Your task to perform on an android device: make emails show in primary in the gmail app Image 0: 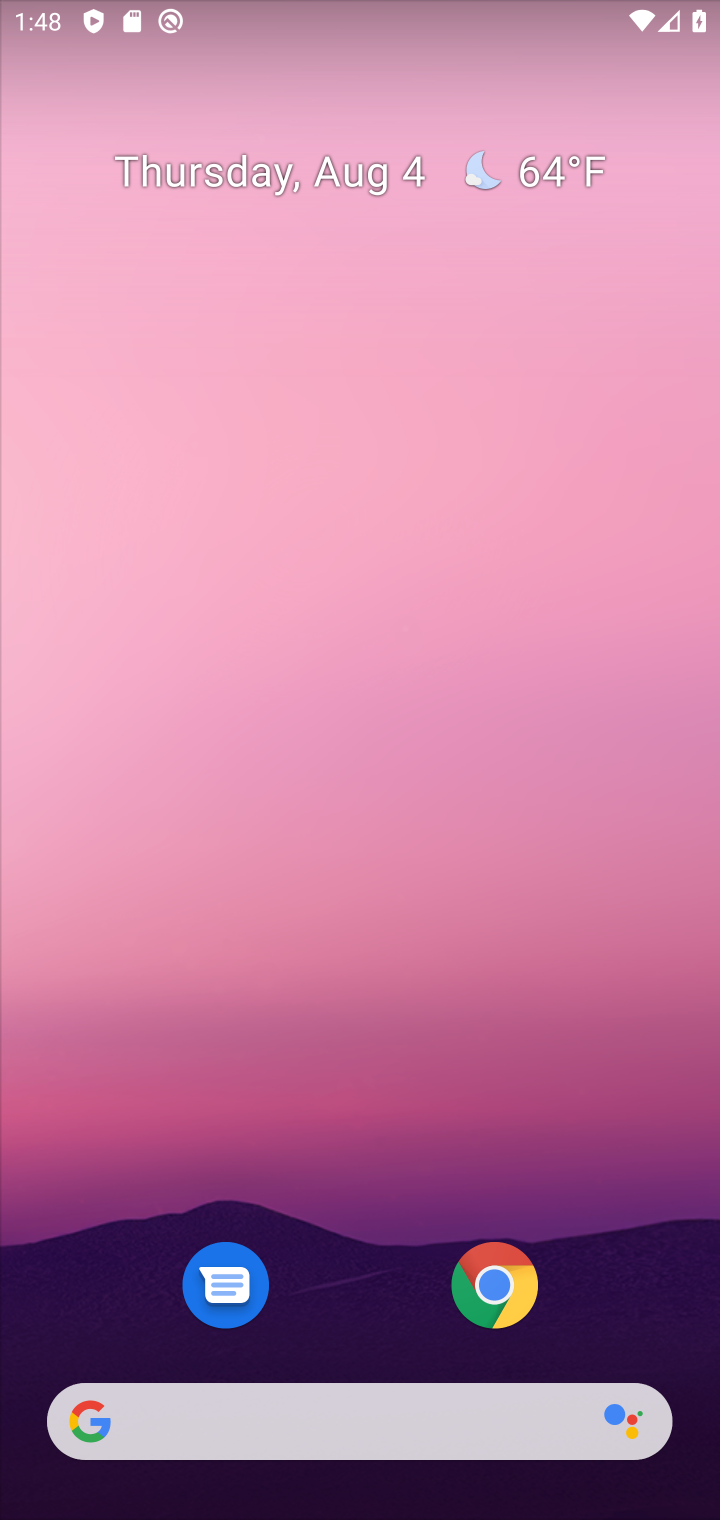
Step 0: drag from (662, 1329) to (554, 244)
Your task to perform on an android device: make emails show in primary in the gmail app Image 1: 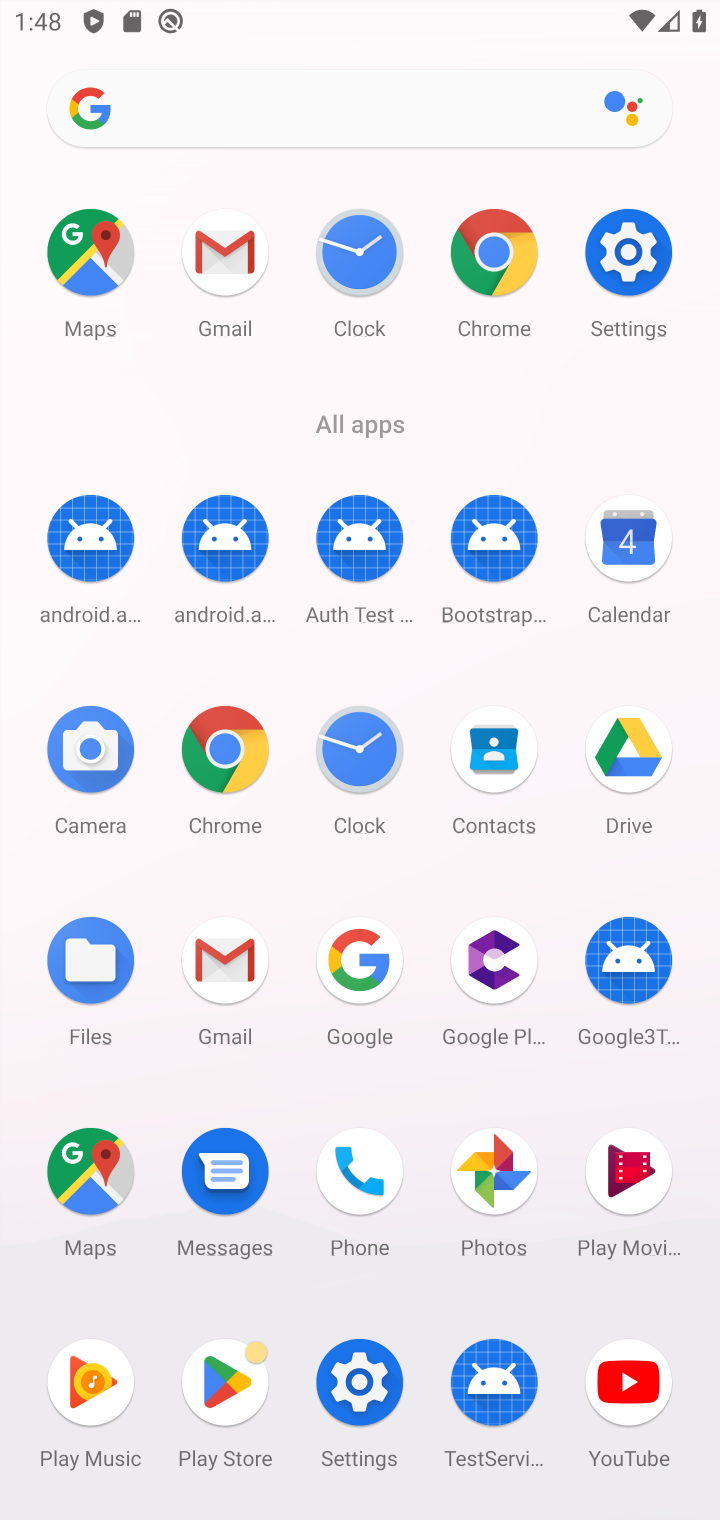
Step 1: click (221, 960)
Your task to perform on an android device: make emails show in primary in the gmail app Image 2: 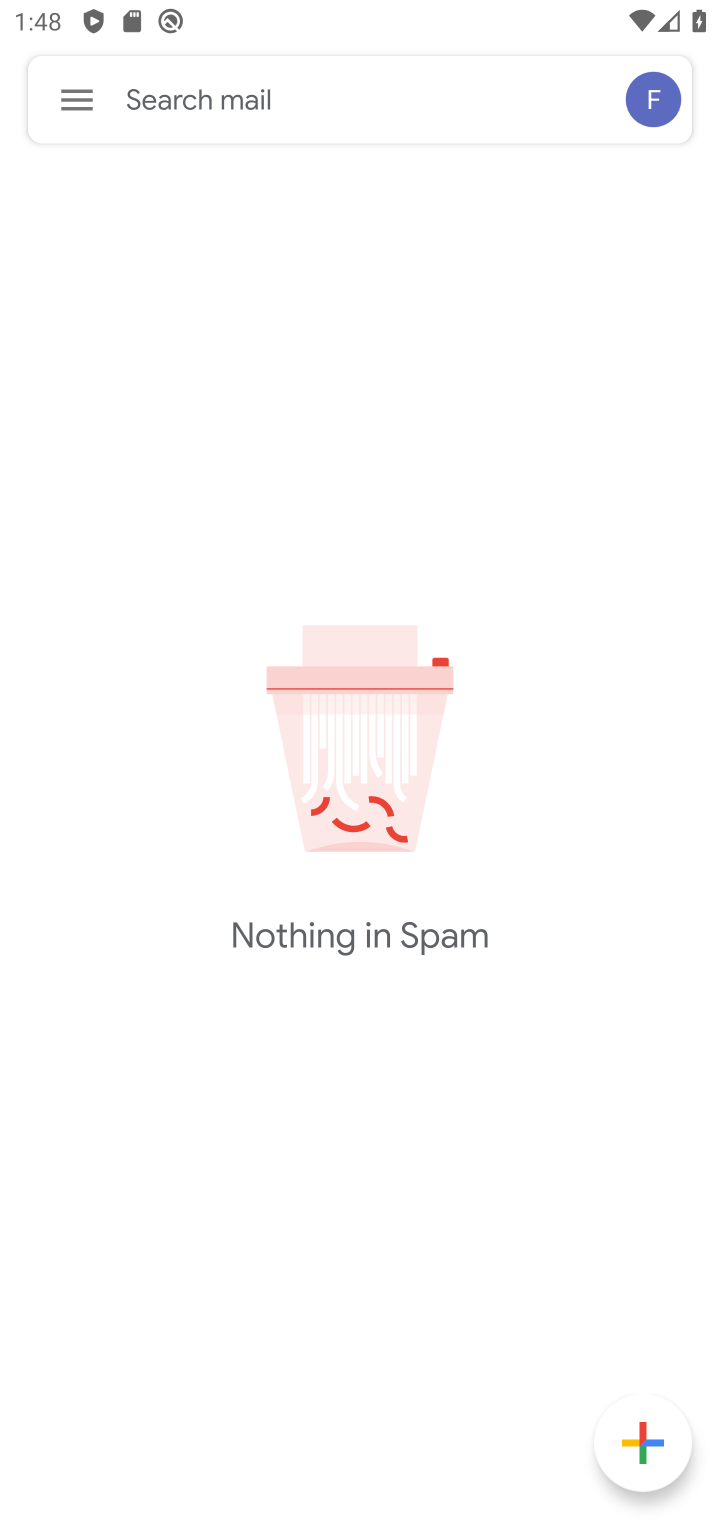
Step 2: click (70, 108)
Your task to perform on an android device: make emails show in primary in the gmail app Image 3: 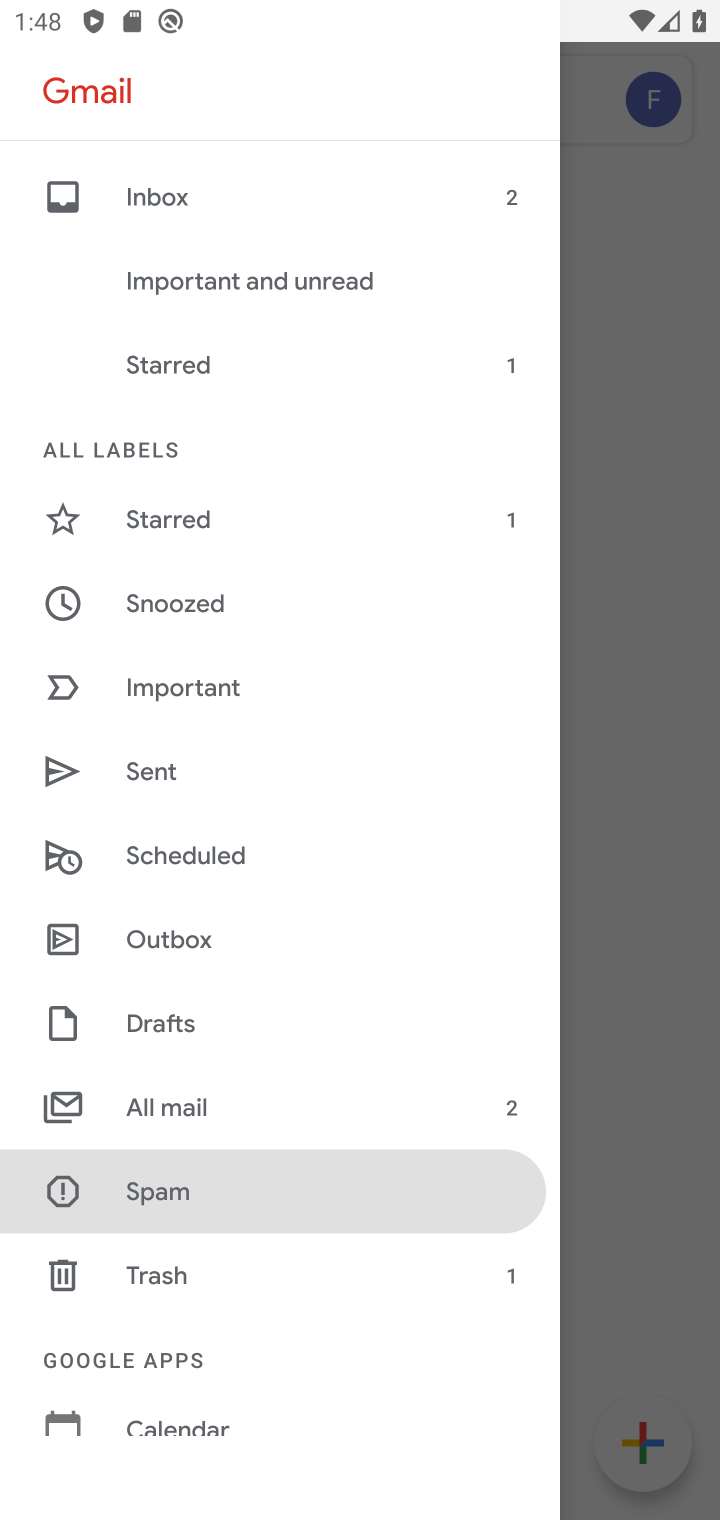
Step 3: drag from (345, 1370) to (391, 723)
Your task to perform on an android device: make emails show in primary in the gmail app Image 4: 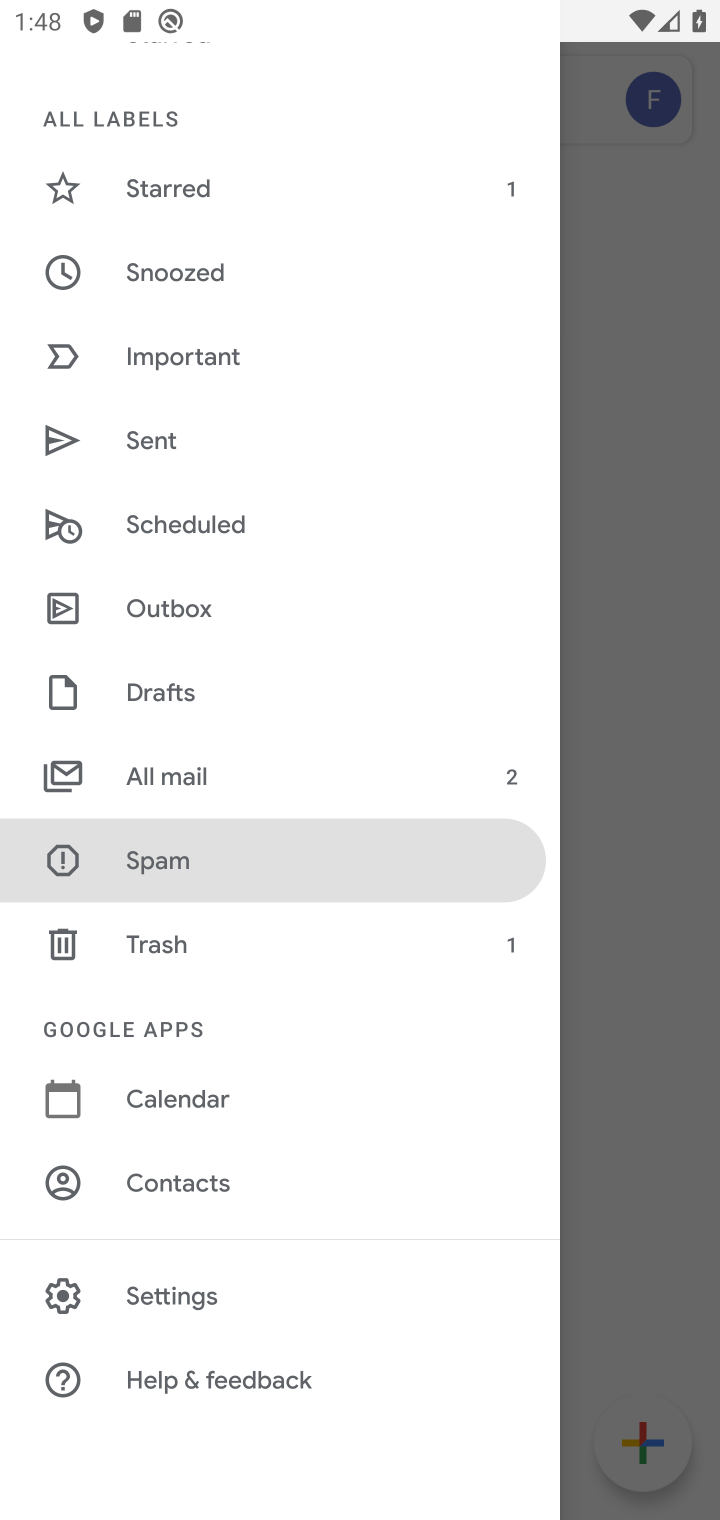
Step 4: click (158, 1289)
Your task to perform on an android device: make emails show in primary in the gmail app Image 5: 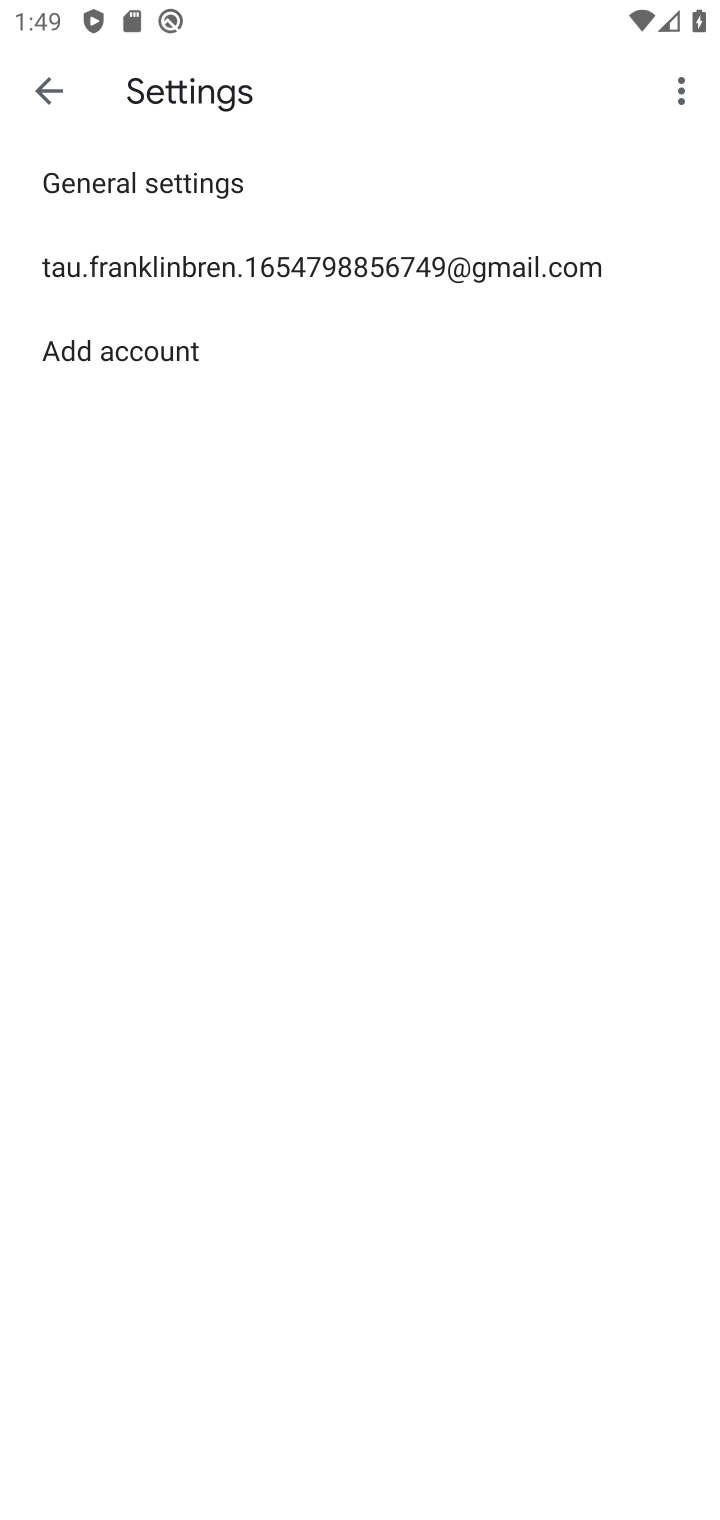
Step 5: click (289, 266)
Your task to perform on an android device: make emails show in primary in the gmail app Image 6: 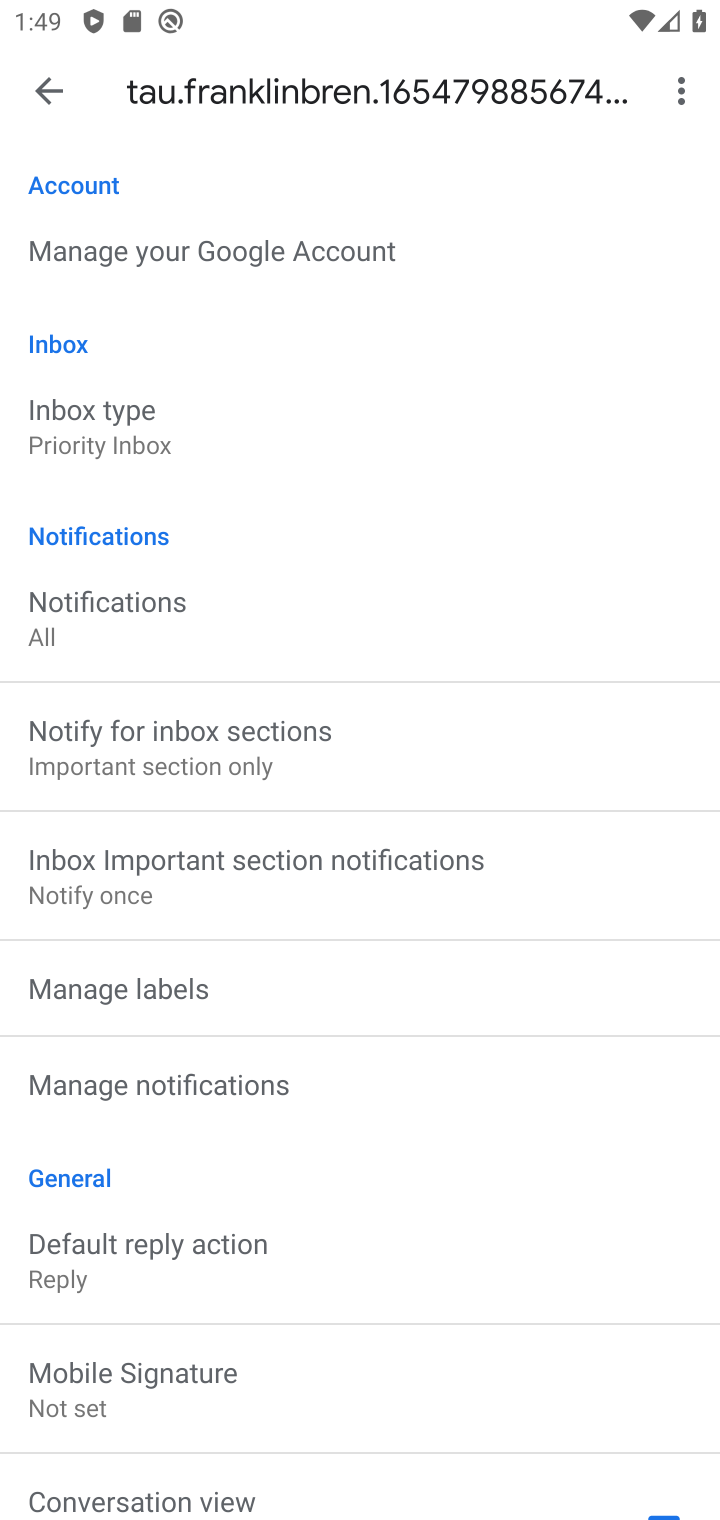
Step 6: click (71, 402)
Your task to perform on an android device: make emails show in primary in the gmail app Image 7: 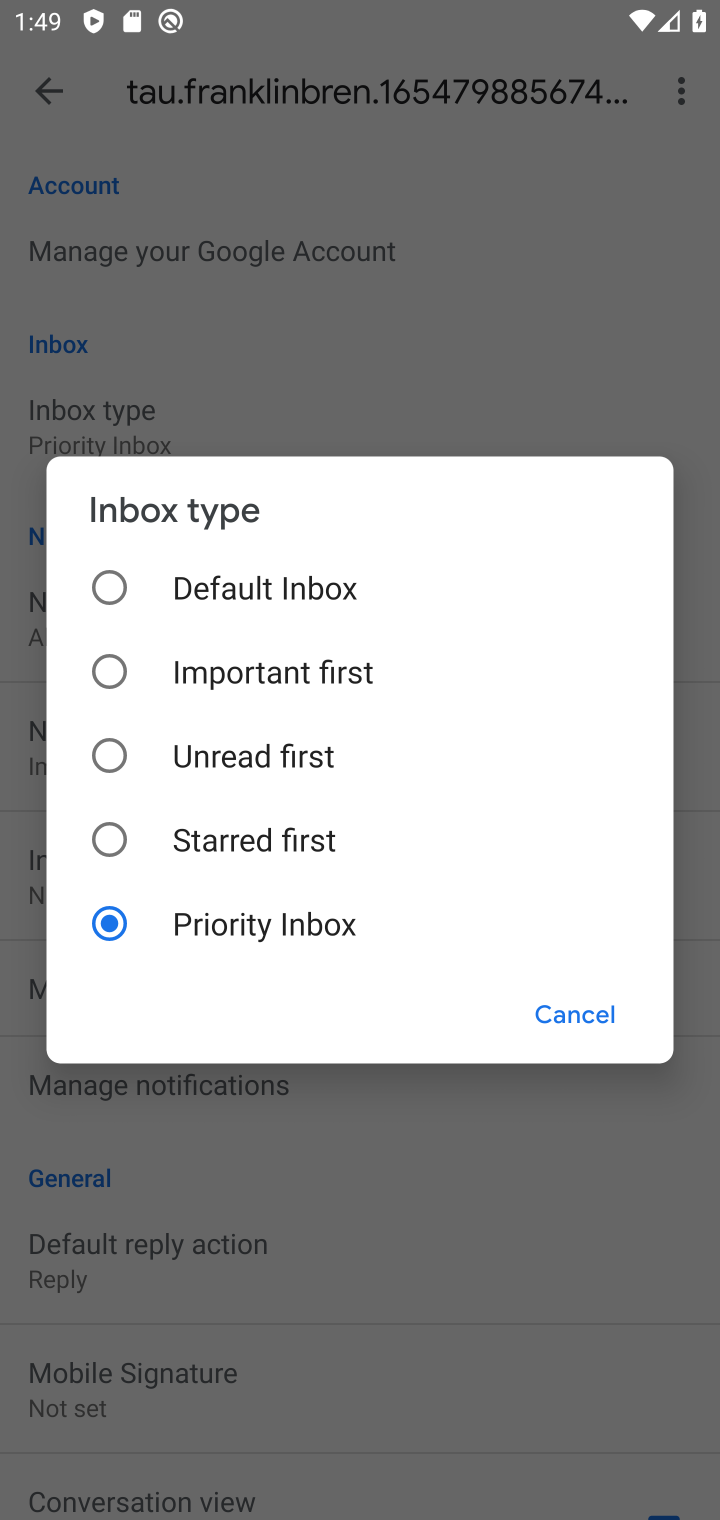
Step 7: click (107, 582)
Your task to perform on an android device: make emails show in primary in the gmail app Image 8: 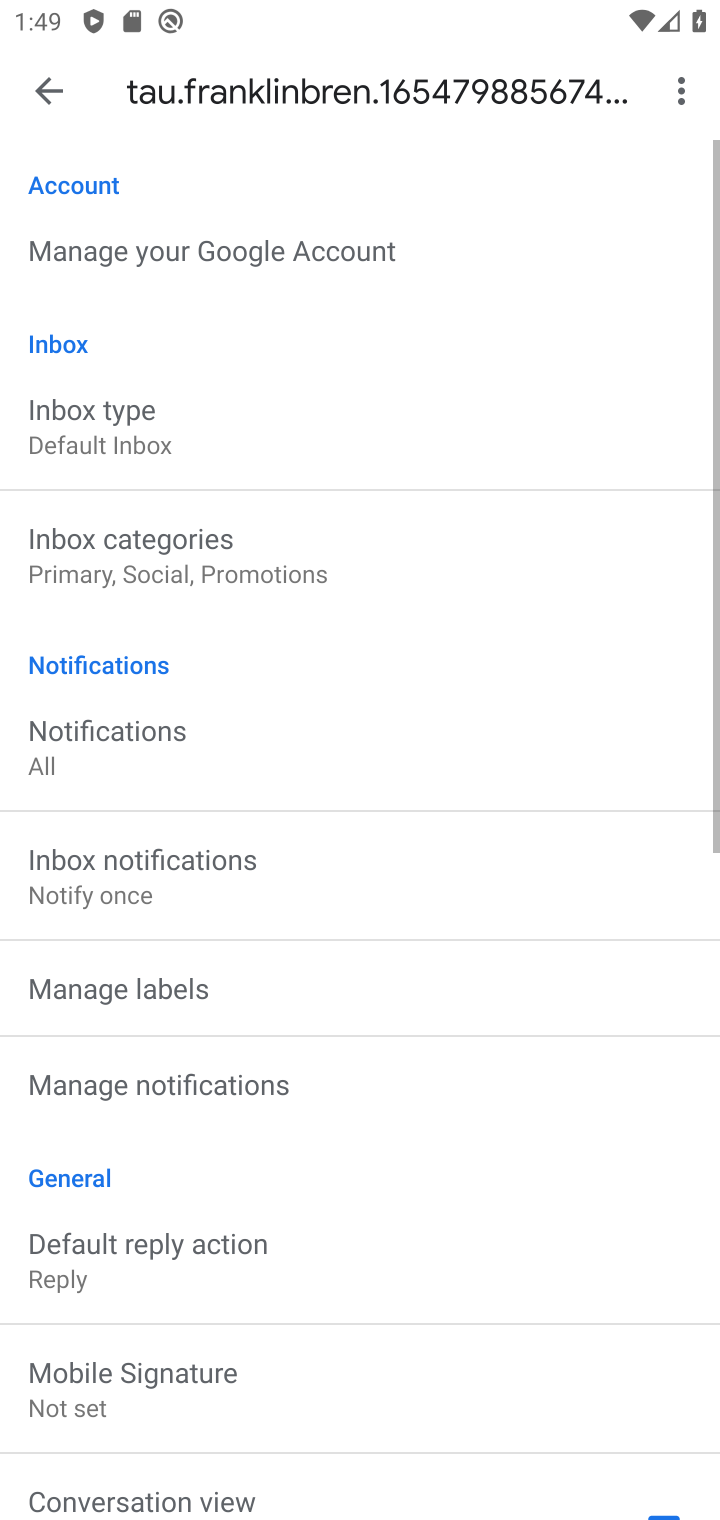
Step 8: click (150, 557)
Your task to perform on an android device: make emails show in primary in the gmail app Image 9: 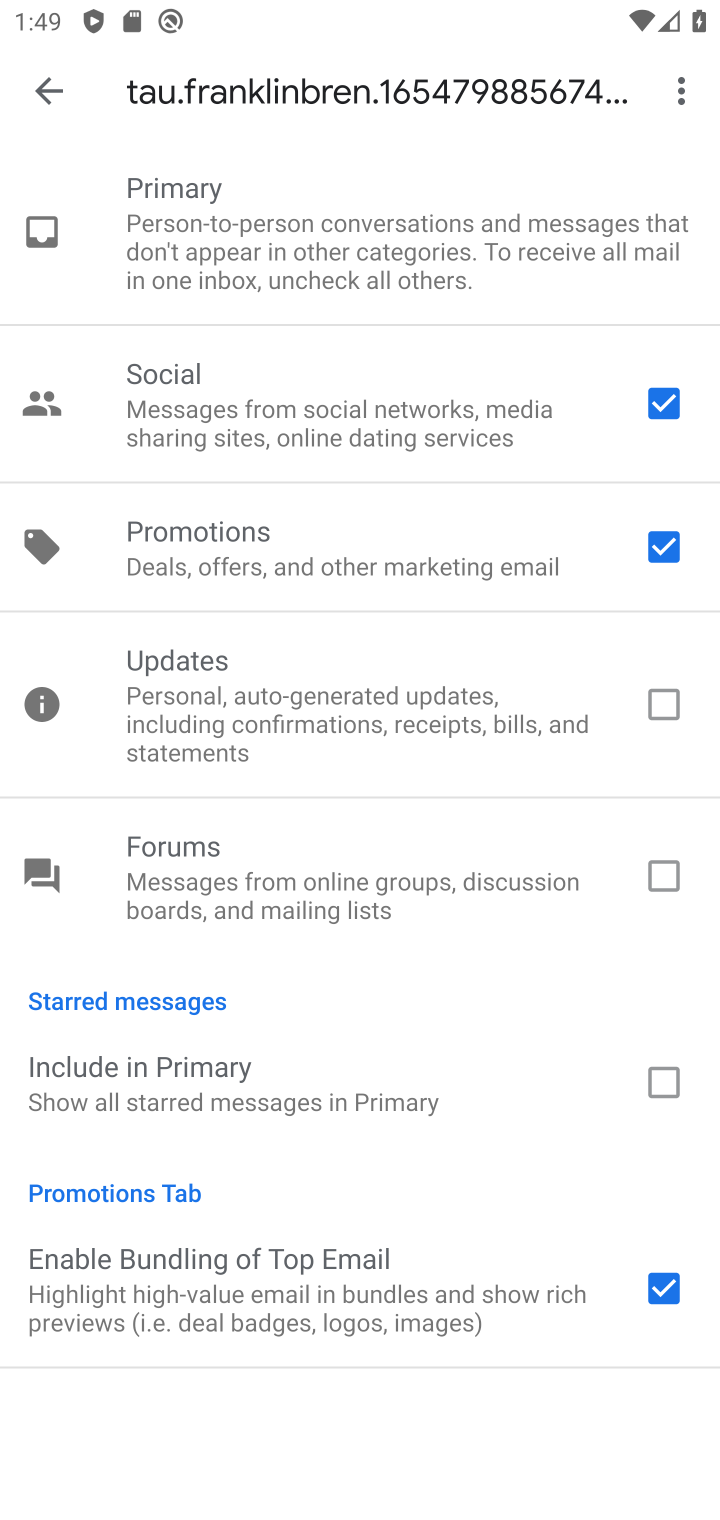
Step 9: click (661, 408)
Your task to perform on an android device: make emails show in primary in the gmail app Image 10: 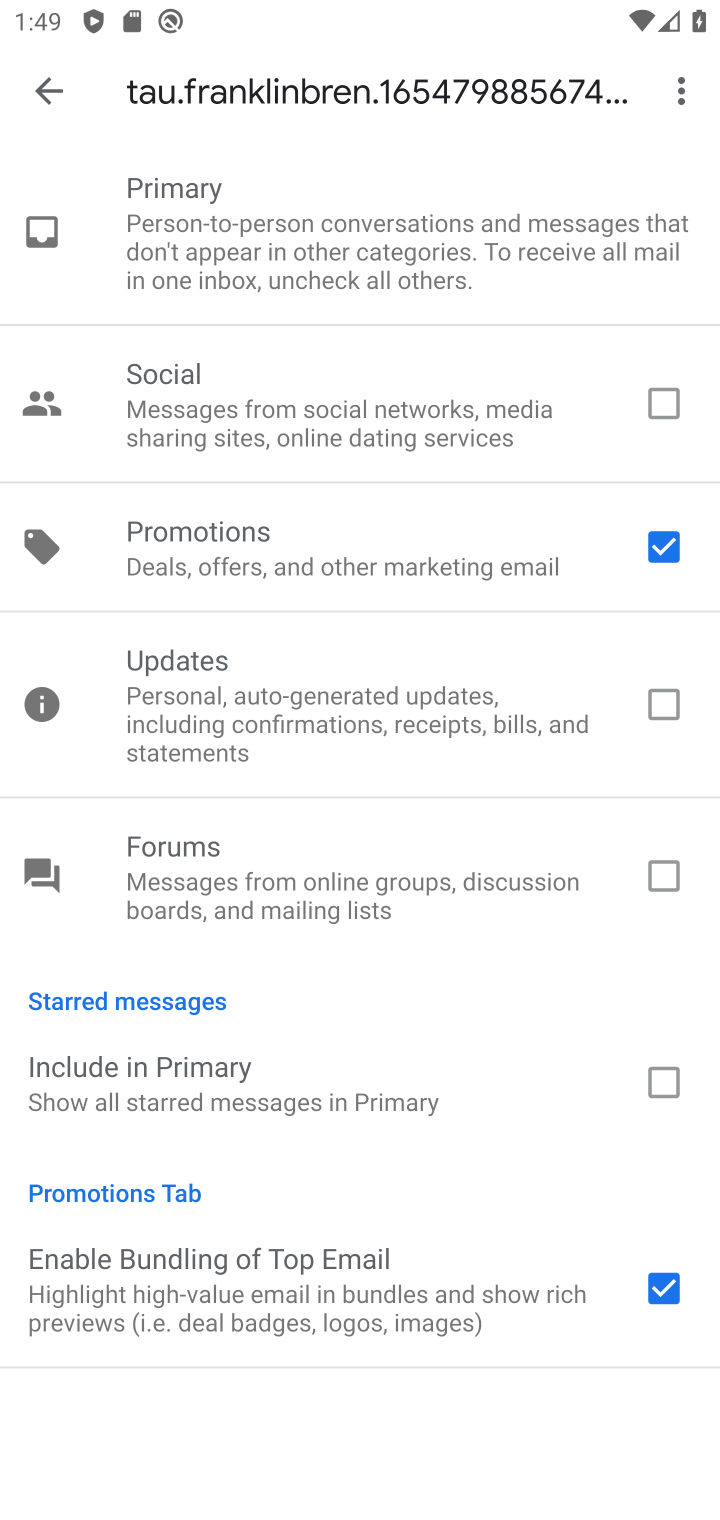
Step 10: click (662, 550)
Your task to perform on an android device: make emails show in primary in the gmail app Image 11: 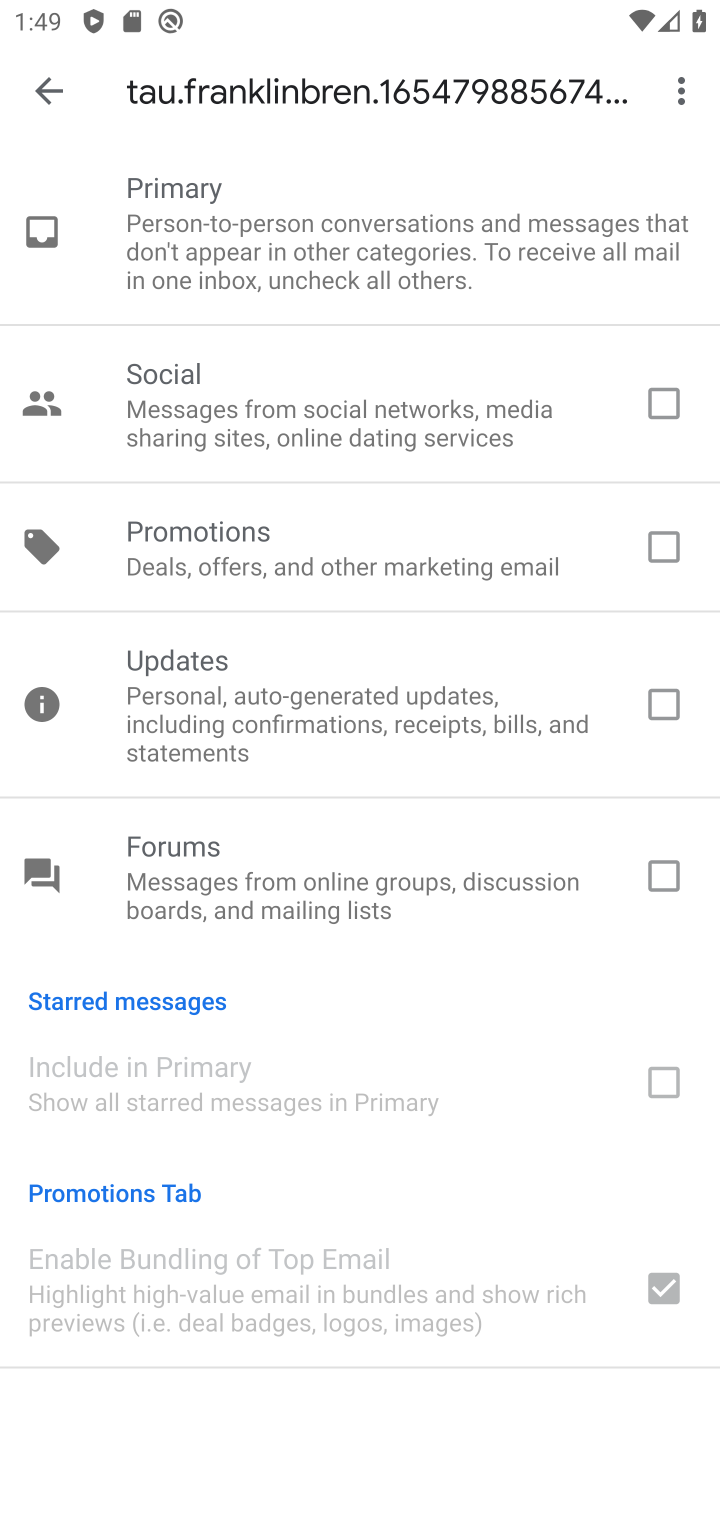
Step 11: task complete